Your task to perform on an android device: turn off data saver in the chrome app Image 0: 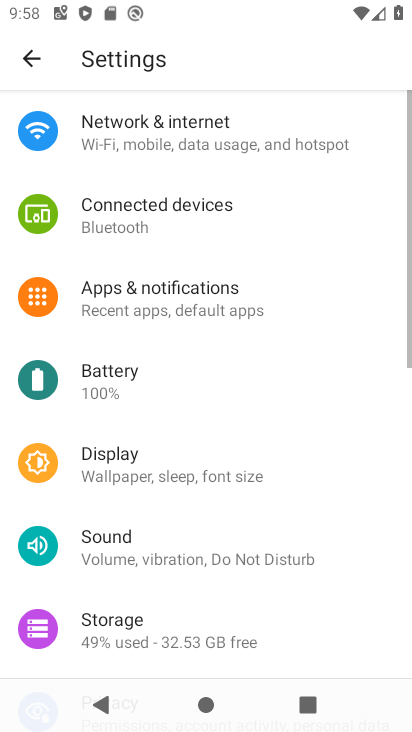
Step 0: press home button
Your task to perform on an android device: turn off data saver in the chrome app Image 1: 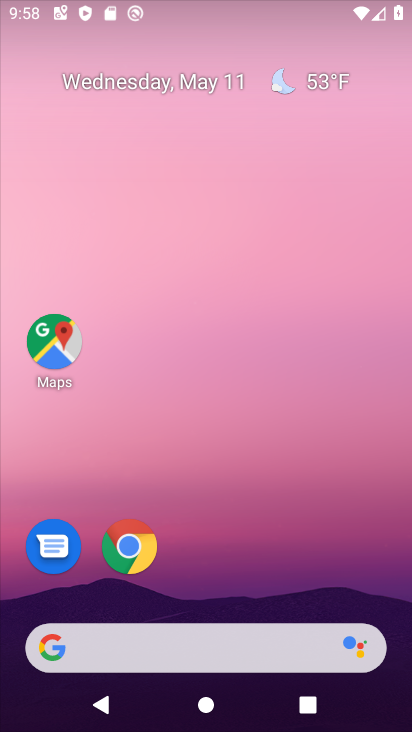
Step 1: drag from (389, 598) to (350, 69)
Your task to perform on an android device: turn off data saver in the chrome app Image 2: 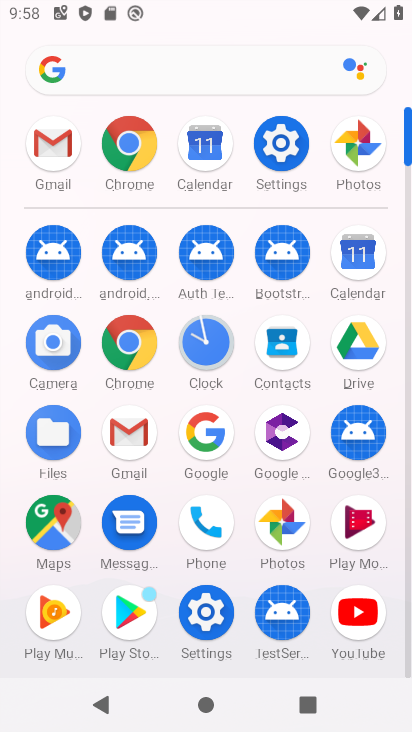
Step 2: click (144, 334)
Your task to perform on an android device: turn off data saver in the chrome app Image 3: 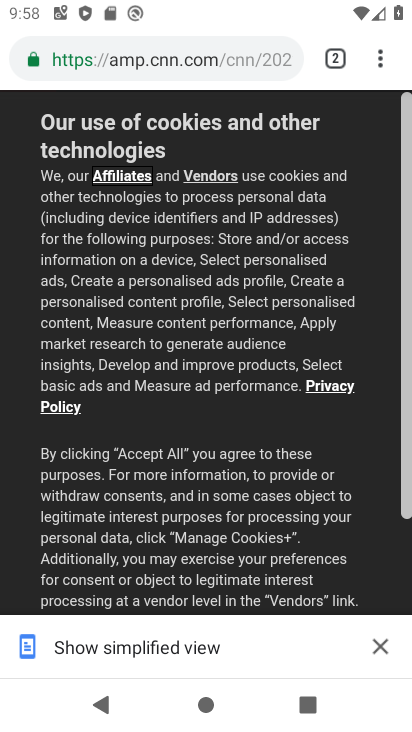
Step 3: press back button
Your task to perform on an android device: turn off data saver in the chrome app Image 4: 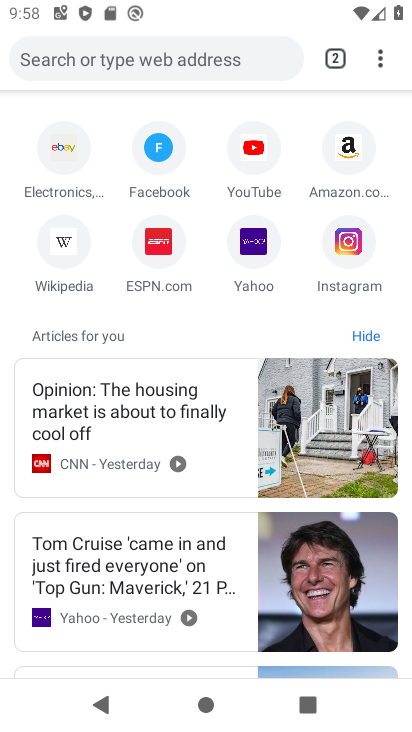
Step 4: click (383, 51)
Your task to perform on an android device: turn off data saver in the chrome app Image 5: 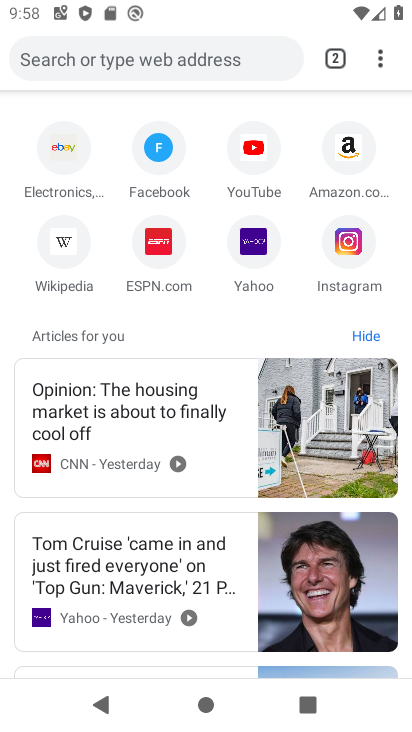
Step 5: click (387, 52)
Your task to perform on an android device: turn off data saver in the chrome app Image 6: 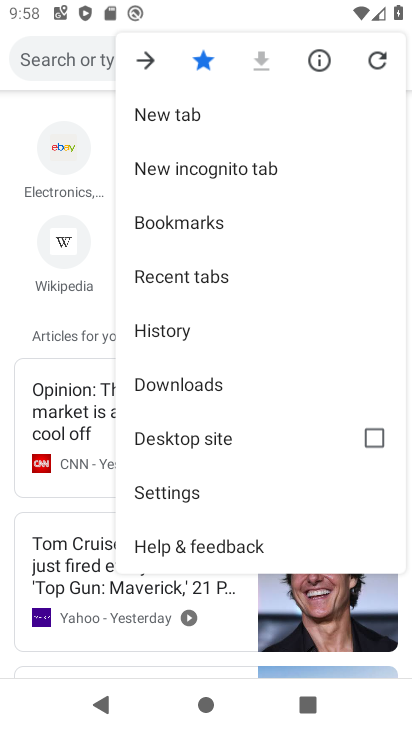
Step 6: click (197, 497)
Your task to perform on an android device: turn off data saver in the chrome app Image 7: 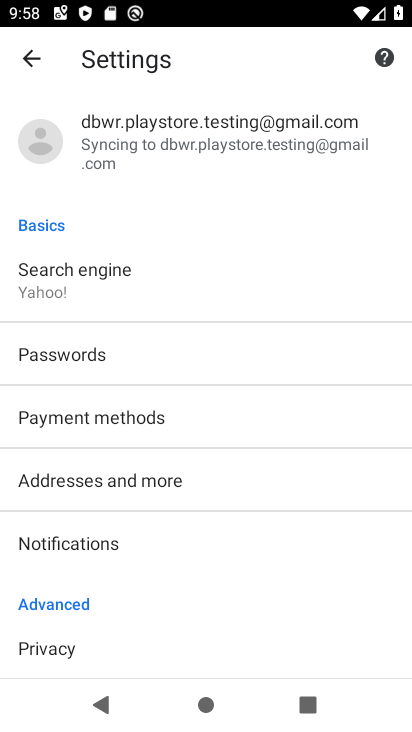
Step 7: drag from (126, 619) to (178, 136)
Your task to perform on an android device: turn off data saver in the chrome app Image 8: 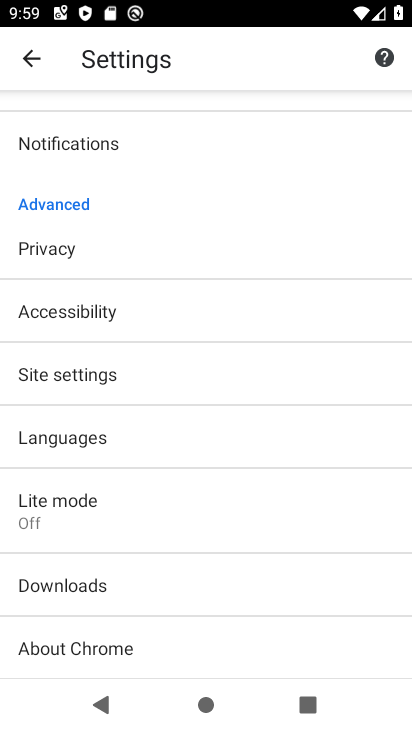
Step 8: click (202, 515)
Your task to perform on an android device: turn off data saver in the chrome app Image 9: 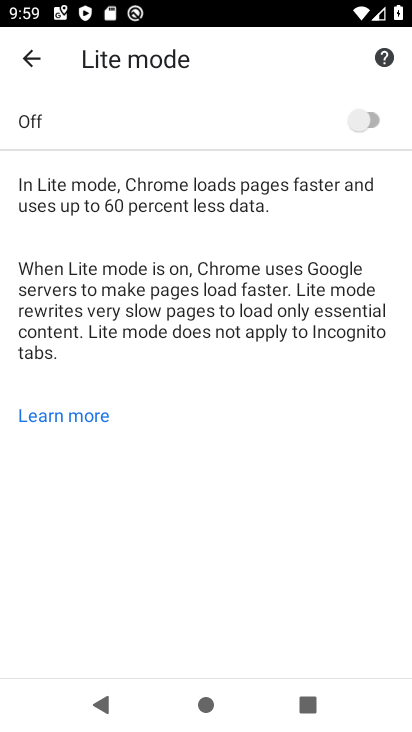
Step 9: task complete